Your task to perform on an android device: Clear the shopping cart on newegg. Search for "razer blade" on newegg, select the first entry, and add it to the cart. Image 0: 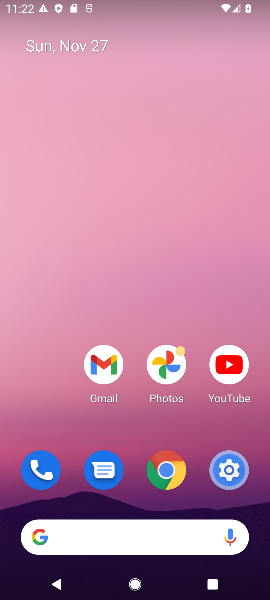
Step 0: press home button
Your task to perform on an android device: Clear the shopping cart on newegg. Search for "razer blade" on newegg, select the first entry, and add it to the cart. Image 1: 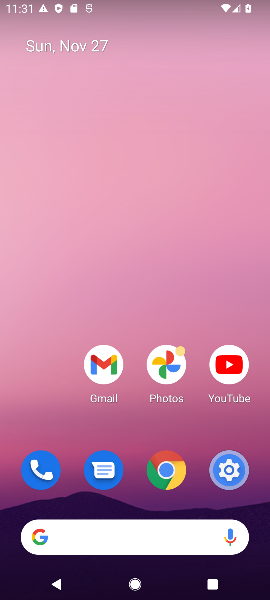
Step 1: task complete